Your task to perform on an android device: Show me recent news Image 0: 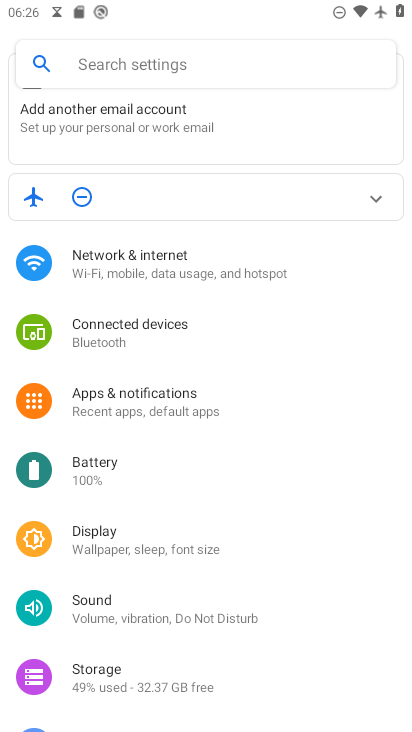
Step 0: press home button
Your task to perform on an android device: Show me recent news Image 1: 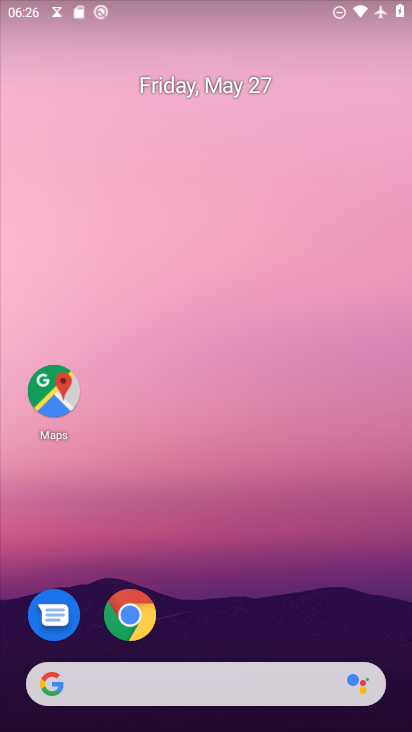
Step 1: drag from (288, 554) to (223, 45)
Your task to perform on an android device: Show me recent news Image 2: 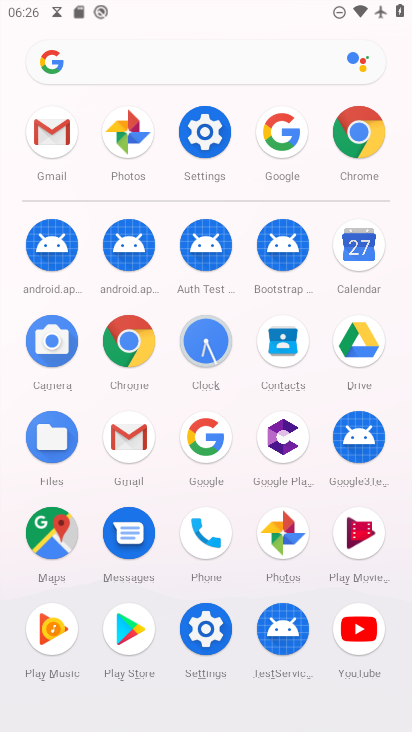
Step 2: click (205, 446)
Your task to perform on an android device: Show me recent news Image 3: 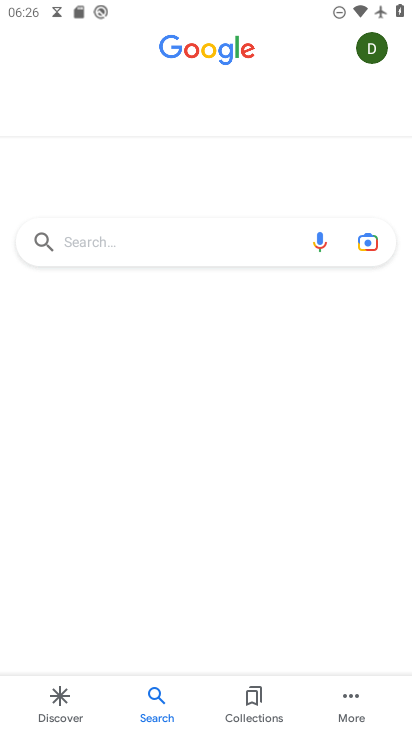
Step 3: click (194, 244)
Your task to perform on an android device: Show me recent news Image 4: 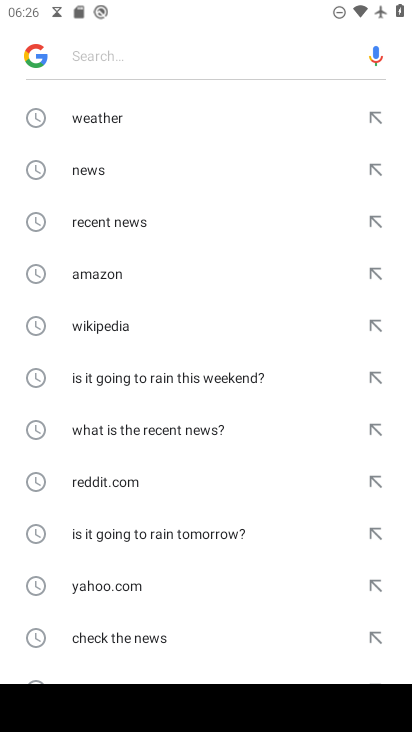
Step 4: click (168, 223)
Your task to perform on an android device: Show me recent news Image 5: 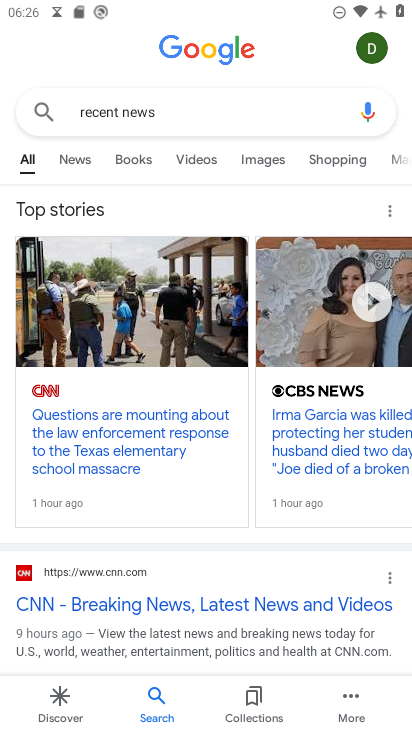
Step 5: task complete